Your task to perform on an android device: Open CNN.com Image 0: 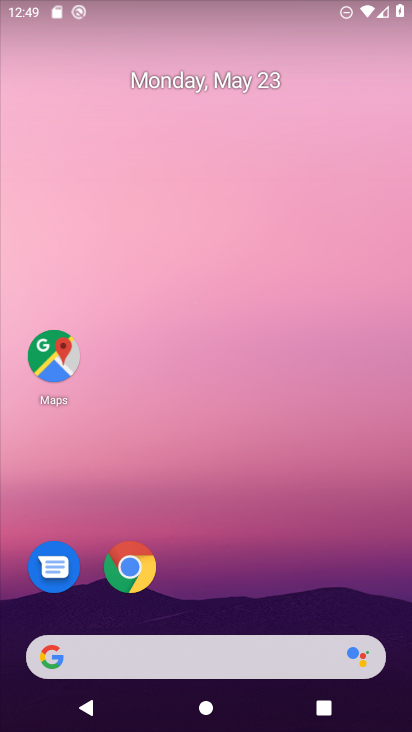
Step 0: click (143, 659)
Your task to perform on an android device: Open CNN.com Image 1: 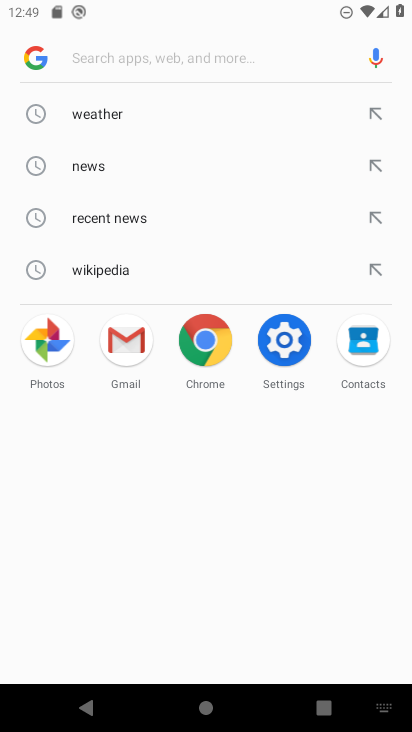
Step 1: type "cnn.com"
Your task to perform on an android device: Open CNN.com Image 2: 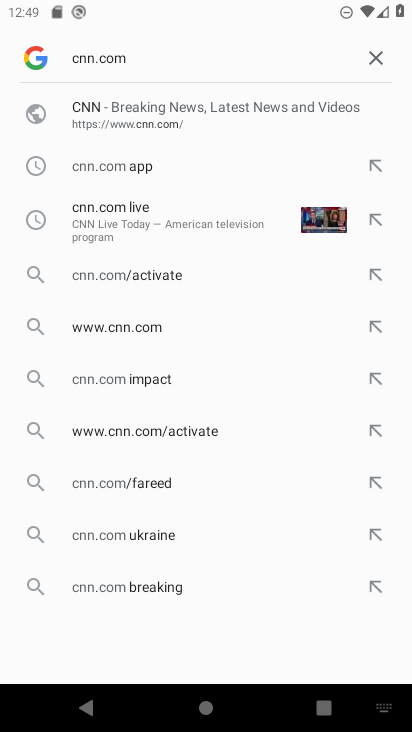
Step 2: click (189, 121)
Your task to perform on an android device: Open CNN.com Image 3: 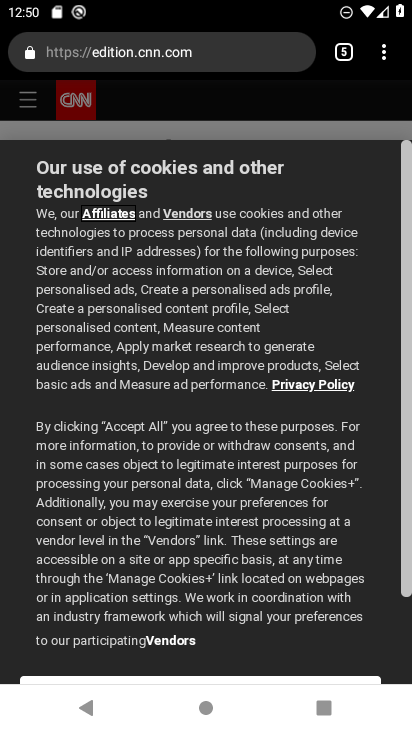
Step 3: task complete